Your task to perform on an android device: manage bookmarks in the chrome app Image 0: 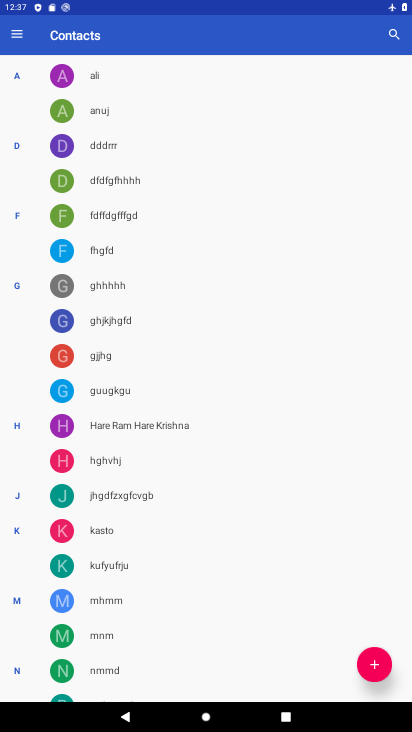
Step 0: press home button
Your task to perform on an android device: manage bookmarks in the chrome app Image 1: 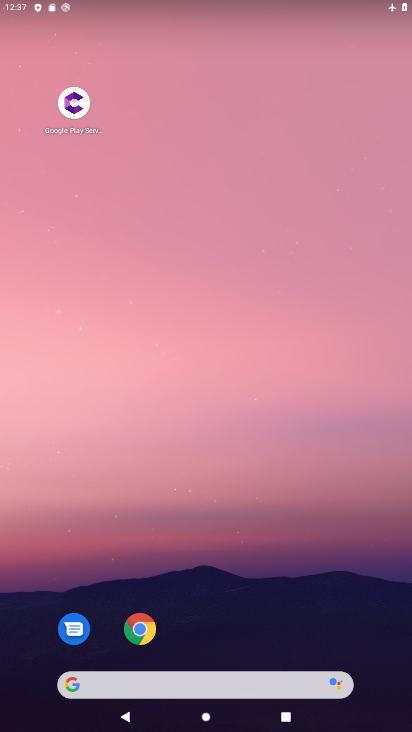
Step 1: drag from (188, 648) to (179, 109)
Your task to perform on an android device: manage bookmarks in the chrome app Image 2: 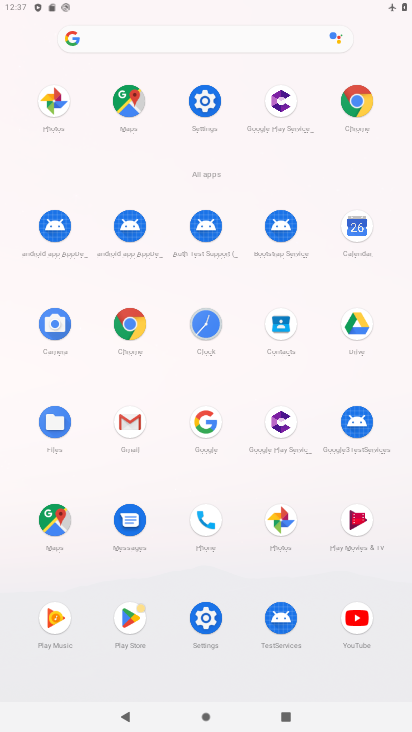
Step 2: click (125, 329)
Your task to perform on an android device: manage bookmarks in the chrome app Image 3: 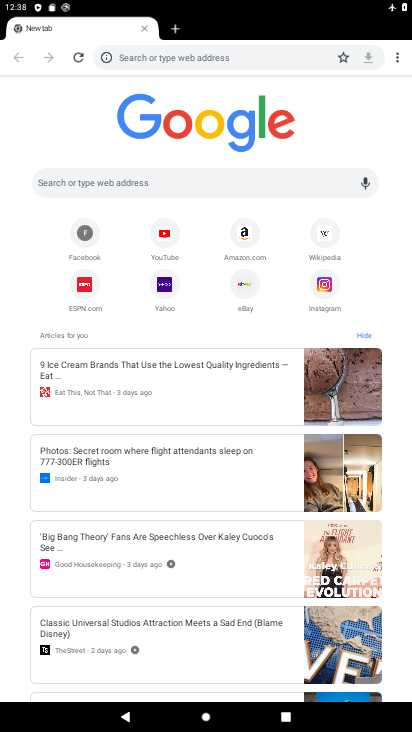
Step 3: drag from (399, 62) to (270, 254)
Your task to perform on an android device: manage bookmarks in the chrome app Image 4: 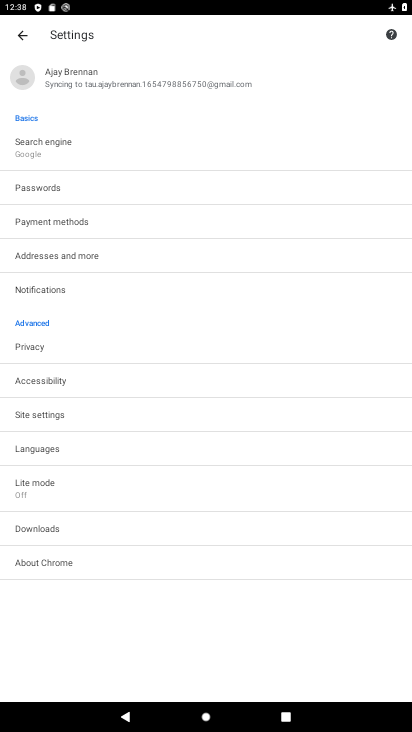
Step 4: click (19, 35)
Your task to perform on an android device: manage bookmarks in the chrome app Image 5: 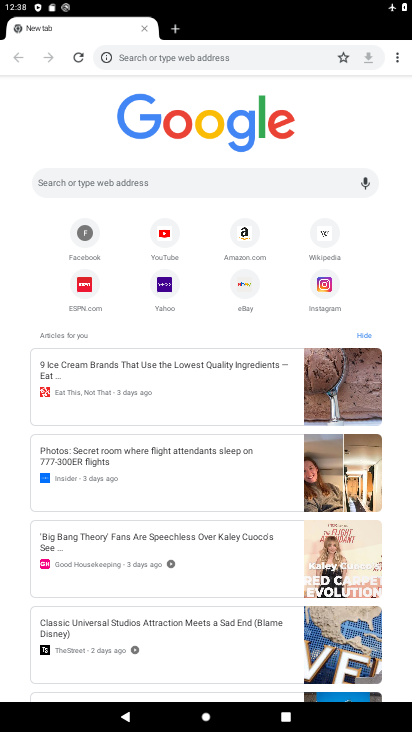
Step 5: drag from (395, 56) to (276, 119)
Your task to perform on an android device: manage bookmarks in the chrome app Image 6: 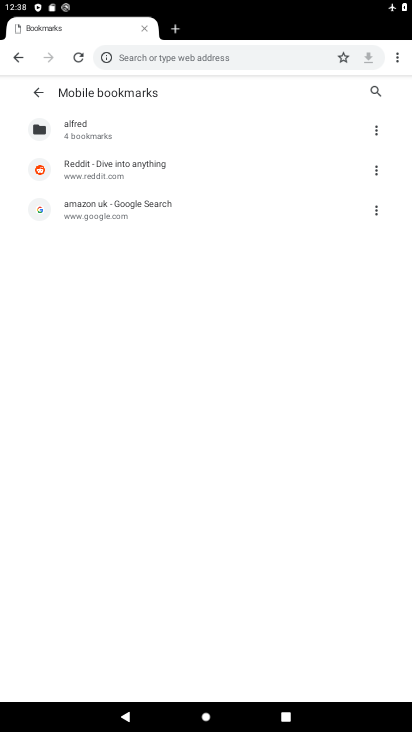
Step 6: click (372, 127)
Your task to perform on an android device: manage bookmarks in the chrome app Image 7: 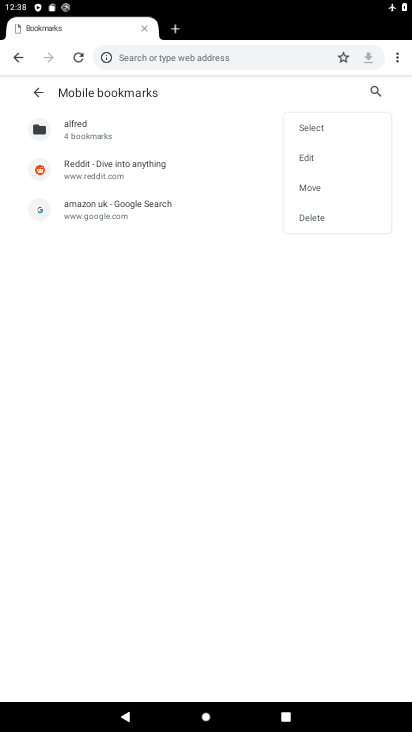
Step 7: click (321, 155)
Your task to perform on an android device: manage bookmarks in the chrome app Image 8: 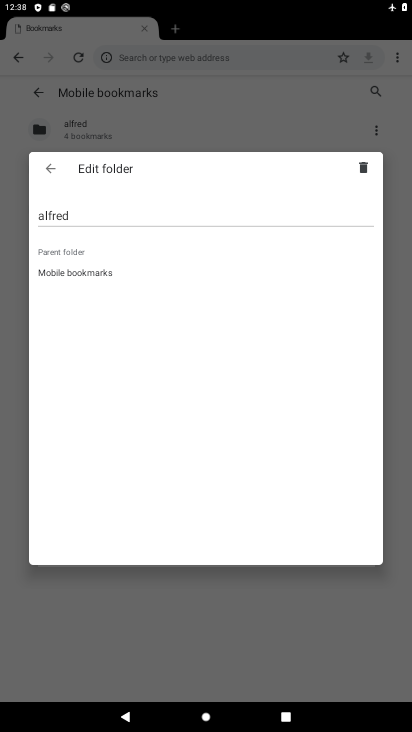
Step 8: task complete